Your task to perform on an android device: Open the web browser Image 0: 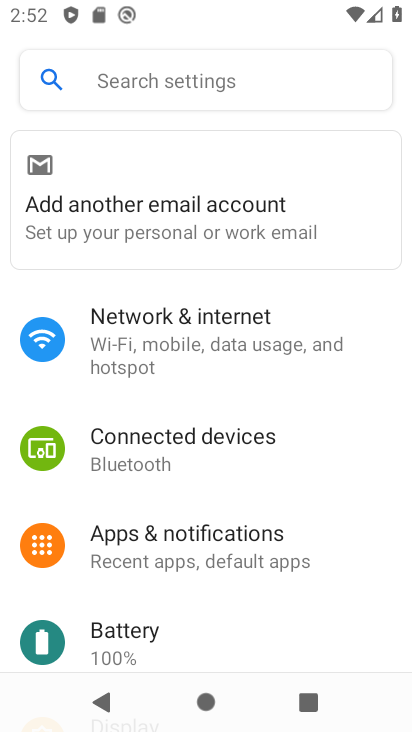
Step 0: press home button
Your task to perform on an android device: Open the web browser Image 1: 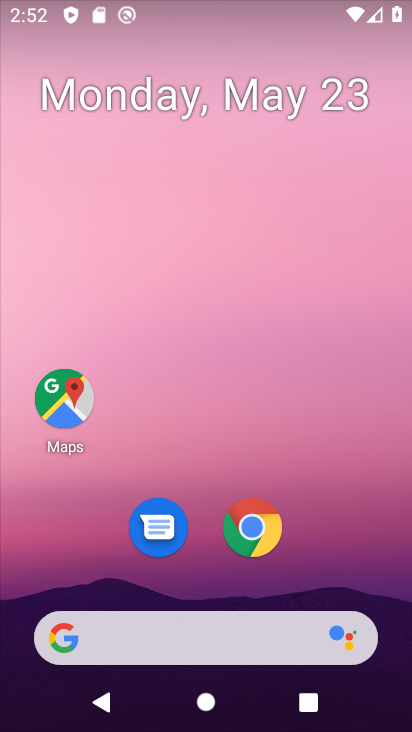
Step 1: click (257, 532)
Your task to perform on an android device: Open the web browser Image 2: 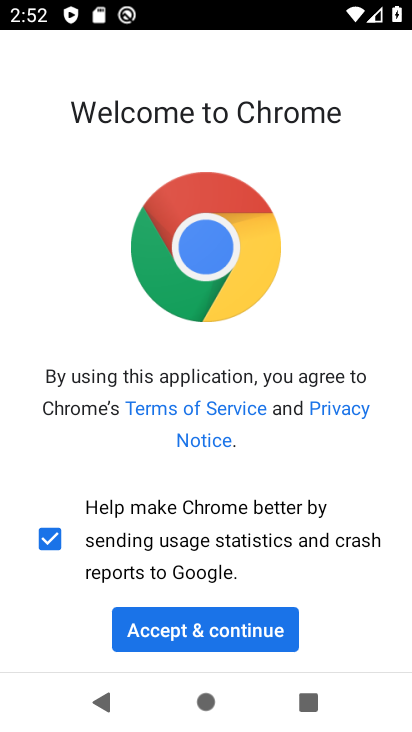
Step 2: click (204, 624)
Your task to perform on an android device: Open the web browser Image 3: 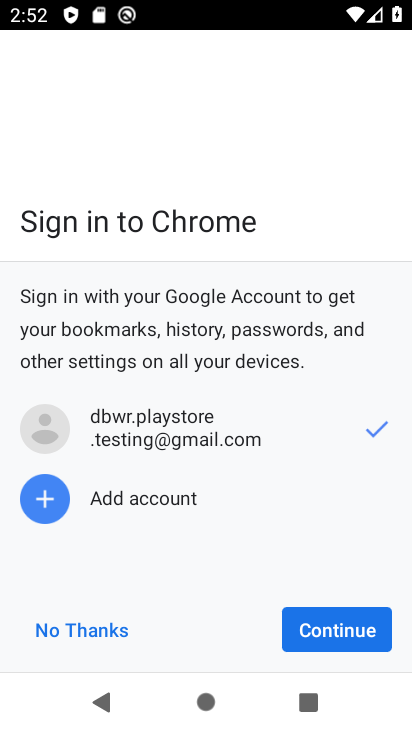
Step 3: click (341, 627)
Your task to perform on an android device: Open the web browser Image 4: 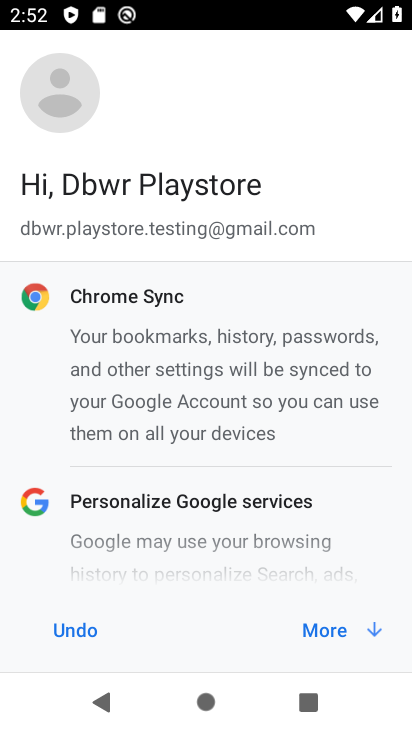
Step 4: click (342, 627)
Your task to perform on an android device: Open the web browser Image 5: 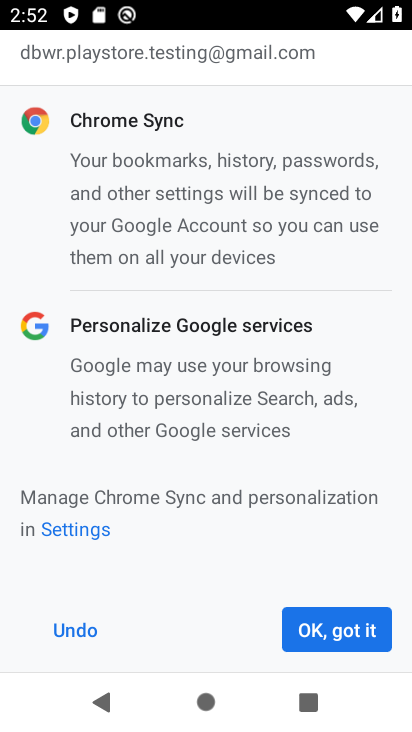
Step 5: click (342, 627)
Your task to perform on an android device: Open the web browser Image 6: 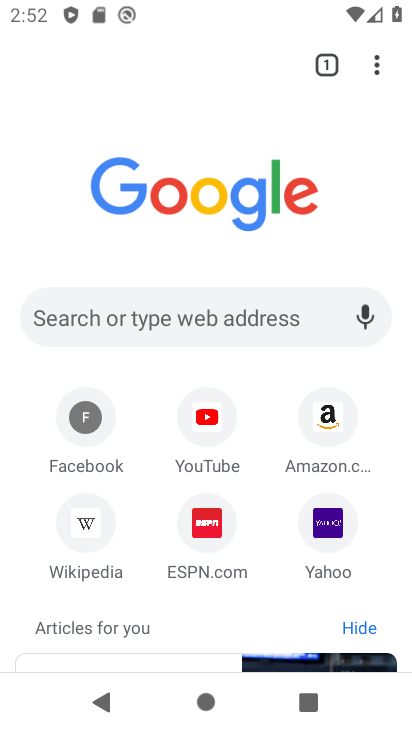
Step 6: task complete